Your task to perform on an android device: check battery use Image 0: 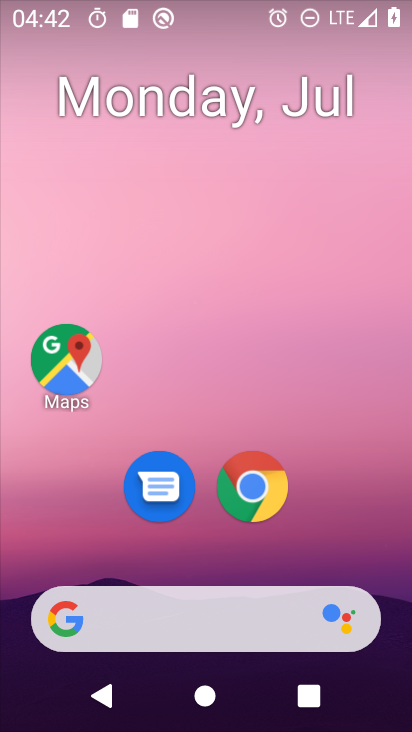
Step 0: drag from (203, 442) to (286, 15)
Your task to perform on an android device: check battery use Image 1: 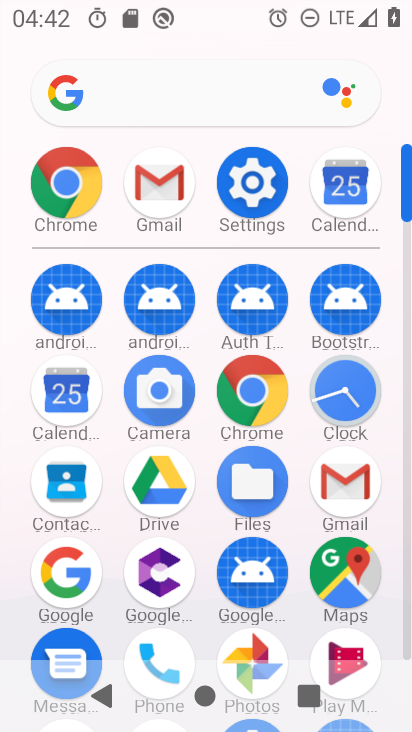
Step 1: click (260, 278)
Your task to perform on an android device: check battery use Image 2: 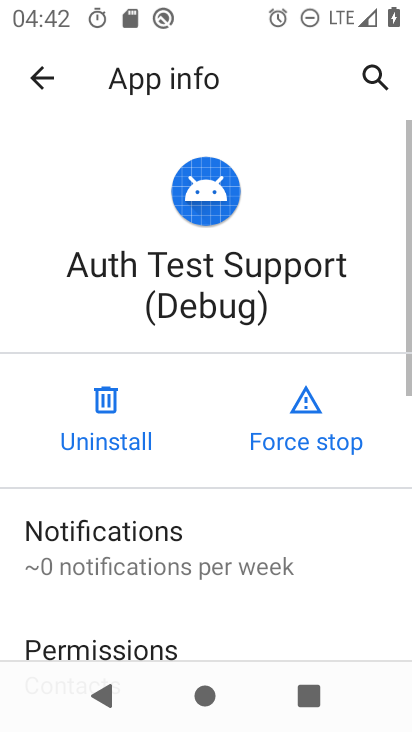
Step 2: click (40, 67)
Your task to perform on an android device: check battery use Image 3: 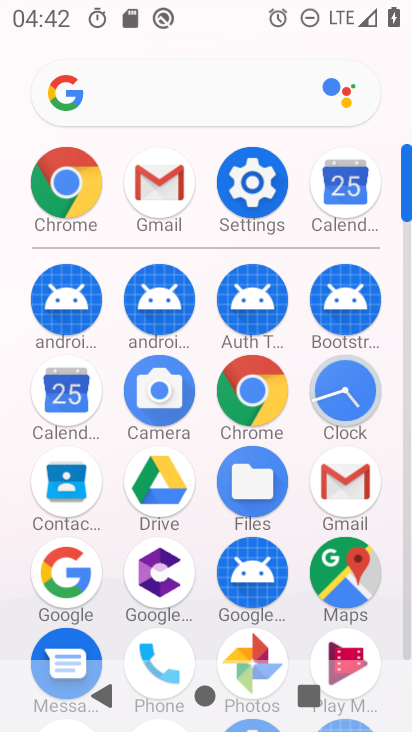
Step 3: click (251, 175)
Your task to perform on an android device: check battery use Image 4: 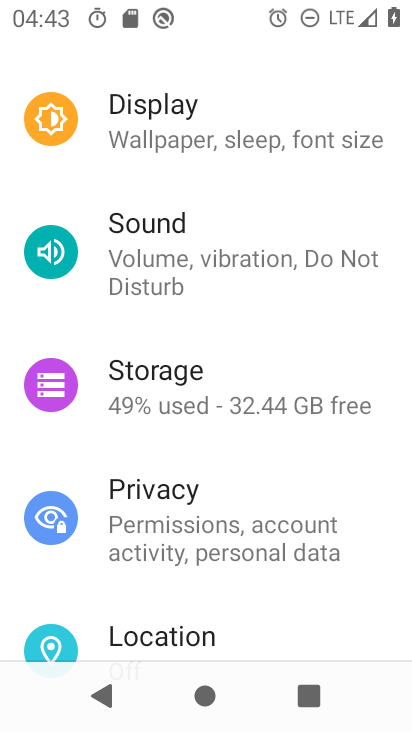
Step 4: drag from (234, 189) to (173, 660)
Your task to perform on an android device: check battery use Image 5: 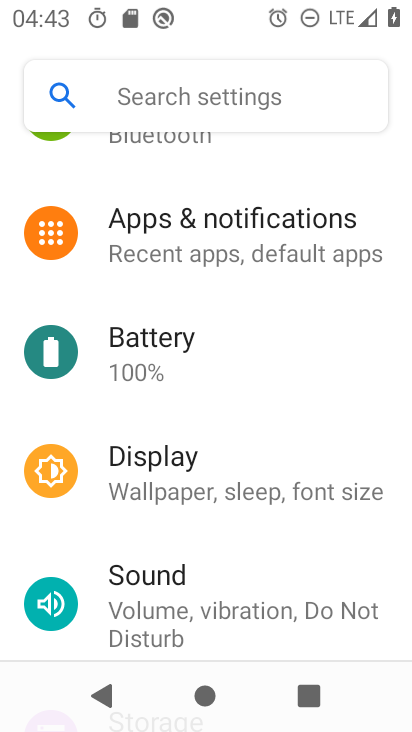
Step 5: click (165, 352)
Your task to perform on an android device: check battery use Image 6: 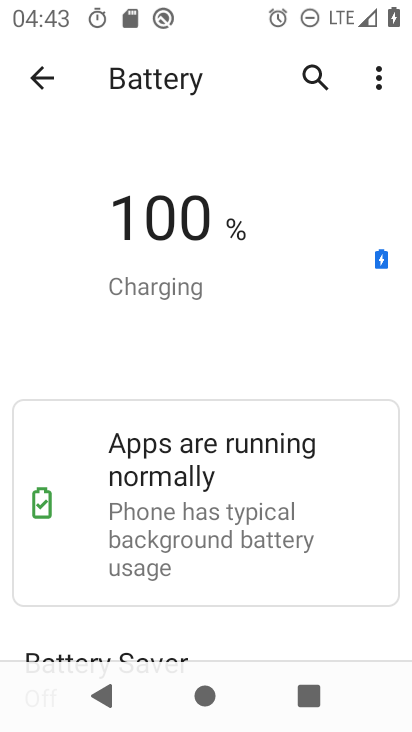
Step 6: click (374, 74)
Your task to perform on an android device: check battery use Image 7: 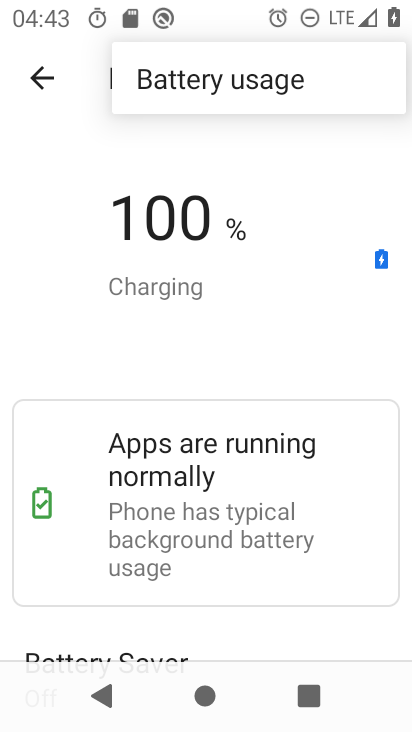
Step 7: click (238, 84)
Your task to perform on an android device: check battery use Image 8: 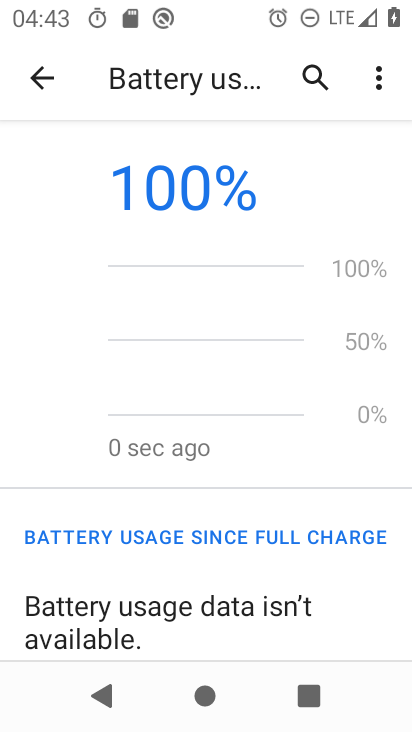
Step 8: task complete